Your task to perform on an android device: turn pop-ups on in chrome Image 0: 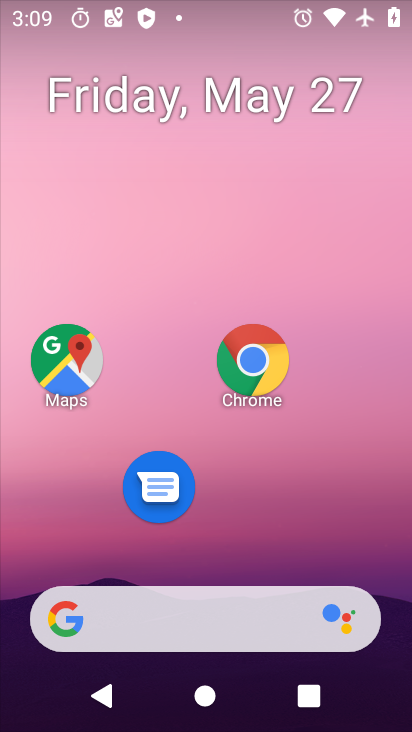
Step 0: click (253, 360)
Your task to perform on an android device: turn pop-ups on in chrome Image 1: 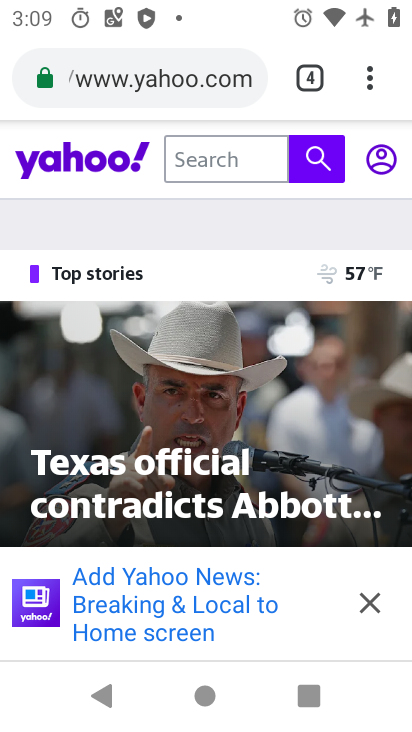
Step 1: click (358, 80)
Your task to perform on an android device: turn pop-ups on in chrome Image 2: 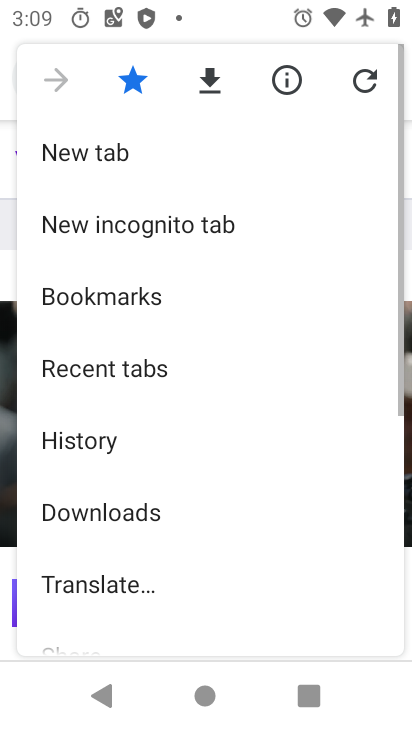
Step 2: drag from (226, 489) to (216, 81)
Your task to perform on an android device: turn pop-ups on in chrome Image 3: 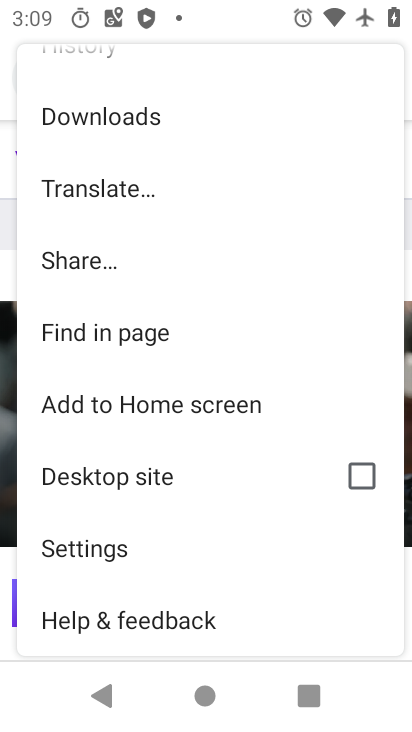
Step 3: click (129, 544)
Your task to perform on an android device: turn pop-ups on in chrome Image 4: 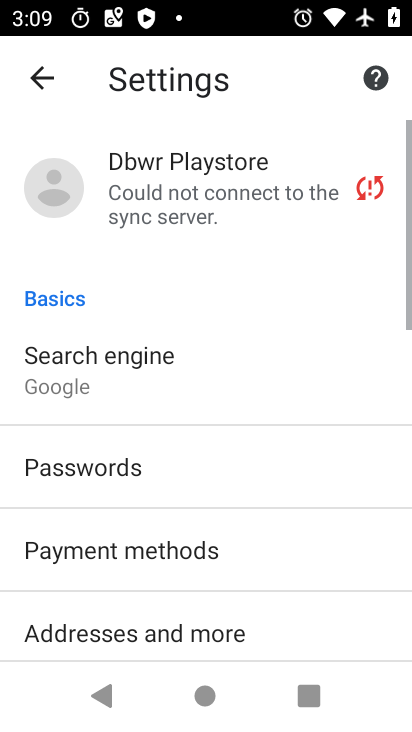
Step 4: drag from (259, 340) to (272, 3)
Your task to perform on an android device: turn pop-ups on in chrome Image 5: 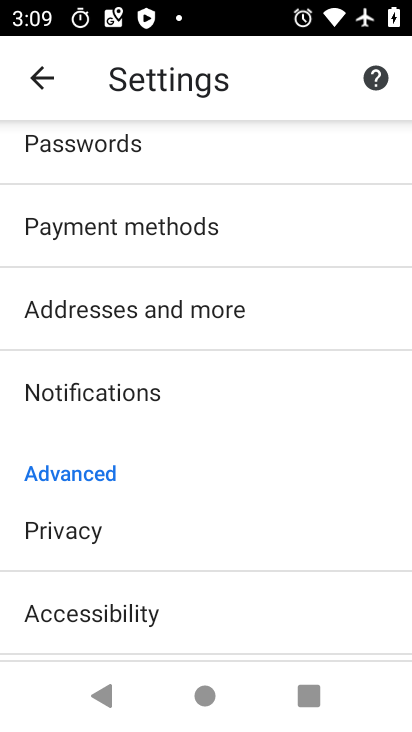
Step 5: drag from (176, 595) to (201, 197)
Your task to perform on an android device: turn pop-ups on in chrome Image 6: 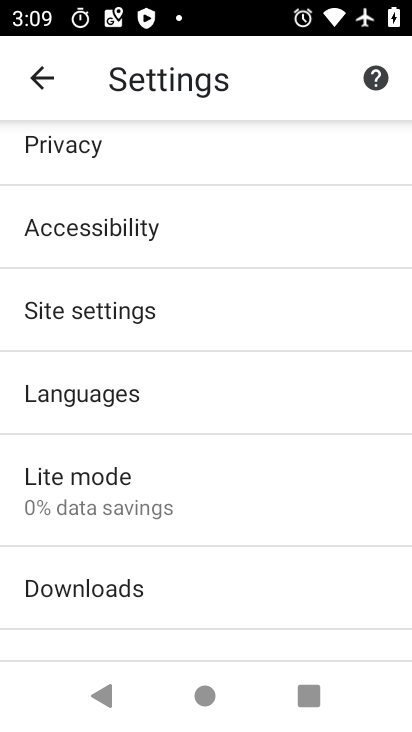
Step 6: click (140, 304)
Your task to perform on an android device: turn pop-ups on in chrome Image 7: 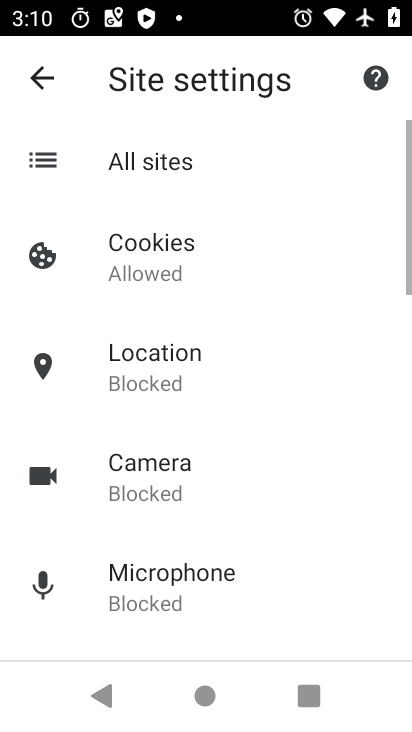
Step 7: drag from (250, 567) to (226, 203)
Your task to perform on an android device: turn pop-ups on in chrome Image 8: 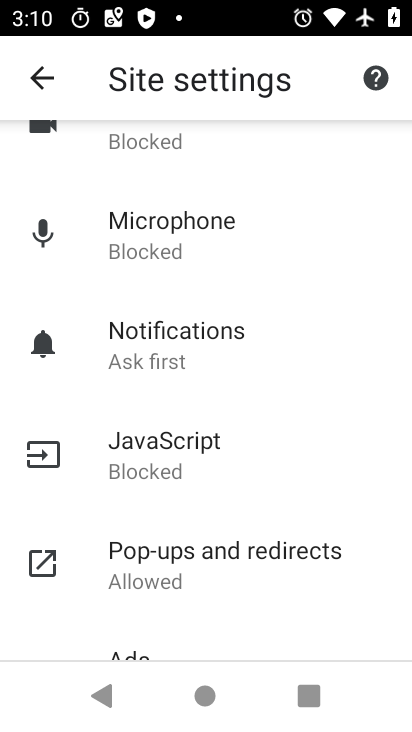
Step 8: click (182, 556)
Your task to perform on an android device: turn pop-ups on in chrome Image 9: 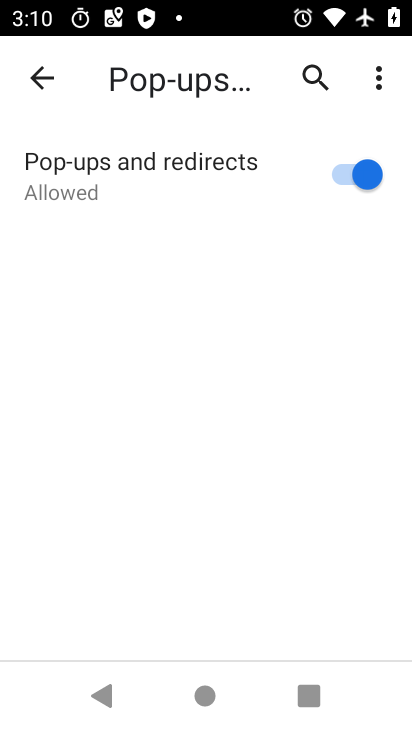
Step 9: task complete